Your task to perform on an android device: Search for Mexican restaurants on Maps Image 0: 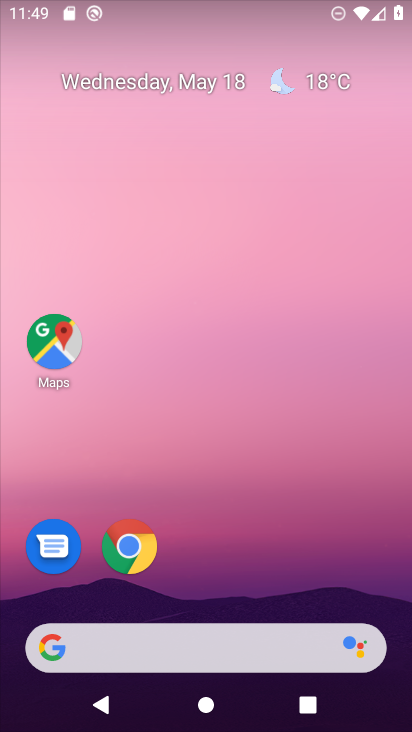
Step 0: drag from (221, 725) to (222, 200)
Your task to perform on an android device: Search for Mexican restaurants on Maps Image 1: 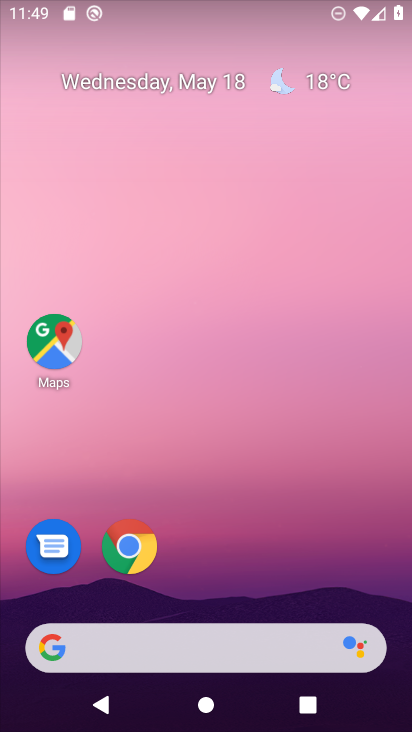
Step 1: drag from (222, 725) to (248, 218)
Your task to perform on an android device: Search for Mexican restaurants on Maps Image 2: 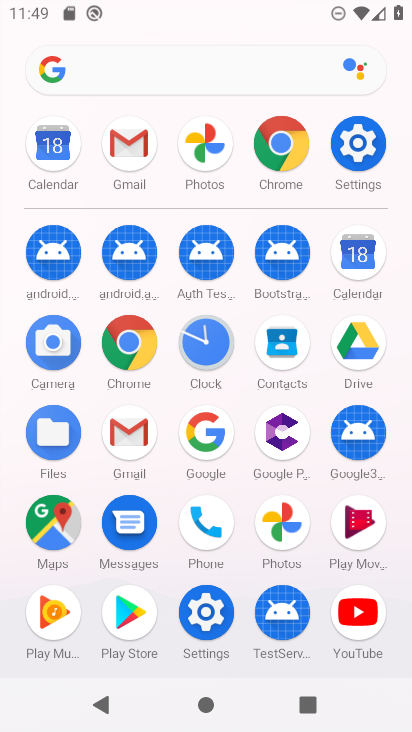
Step 2: click (56, 524)
Your task to perform on an android device: Search for Mexican restaurants on Maps Image 3: 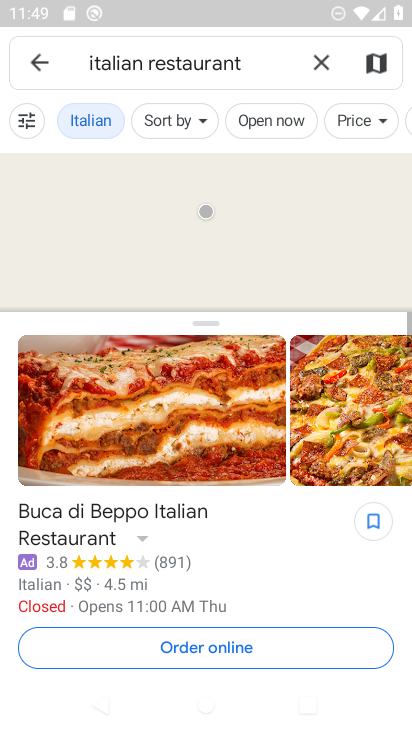
Step 3: click (322, 64)
Your task to perform on an android device: Search for Mexican restaurants on Maps Image 4: 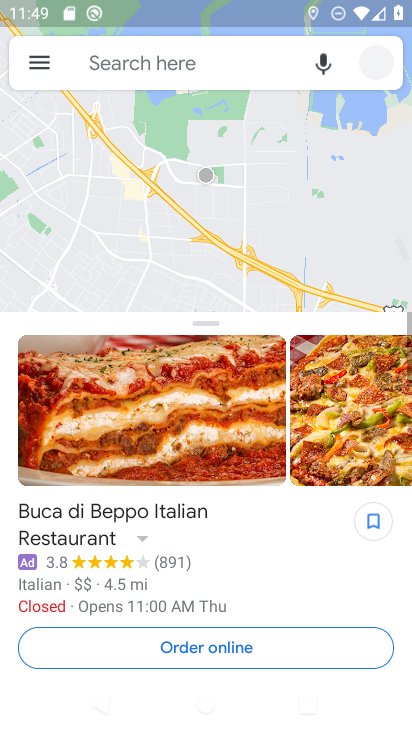
Step 4: click (154, 70)
Your task to perform on an android device: Search for Mexican restaurants on Maps Image 5: 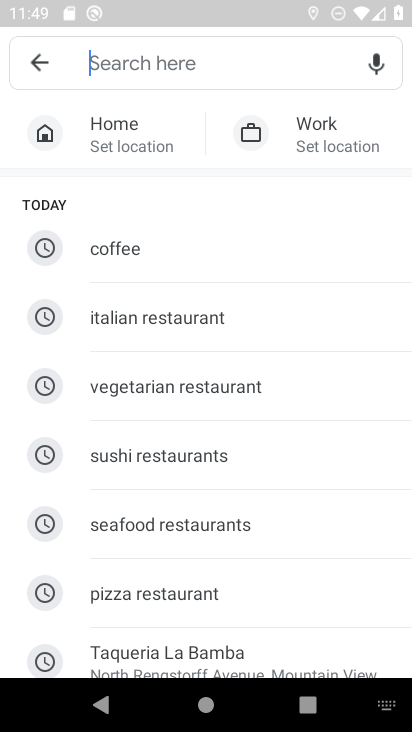
Step 5: type "Mexican restaurants"
Your task to perform on an android device: Search for Mexican restaurants on Maps Image 6: 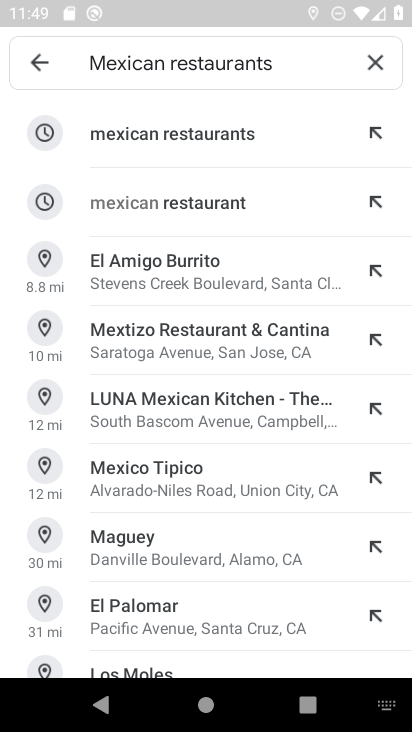
Step 6: click (142, 136)
Your task to perform on an android device: Search for Mexican restaurants on Maps Image 7: 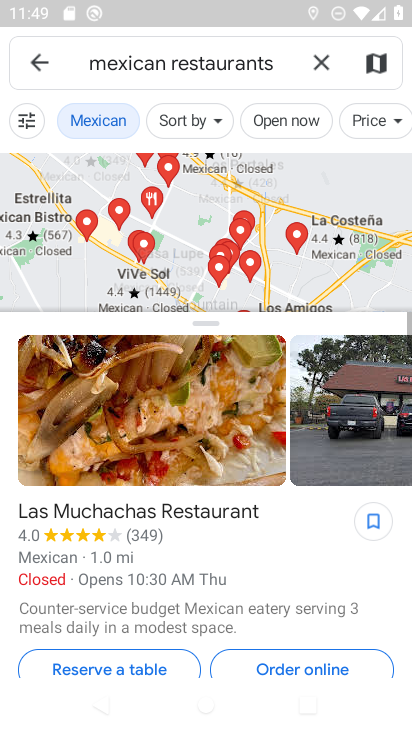
Step 7: task complete